Your task to perform on an android device: Open Youtube and go to the subscriptions tab Image 0: 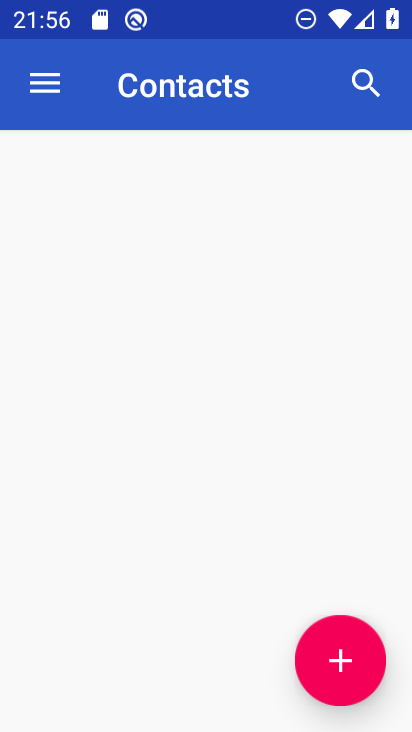
Step 0: press home button
Your task to perform on an android device: Open Youtube and go to the subscriptions tab Image 1: 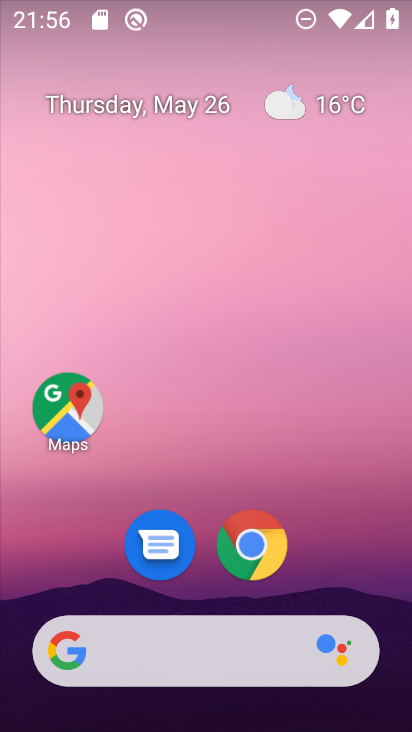
Step 1: drag from (338, 541) to (310, 49)
Your task to perform on an android device: Open Youtube and go to the subscriptions tab Image 2: 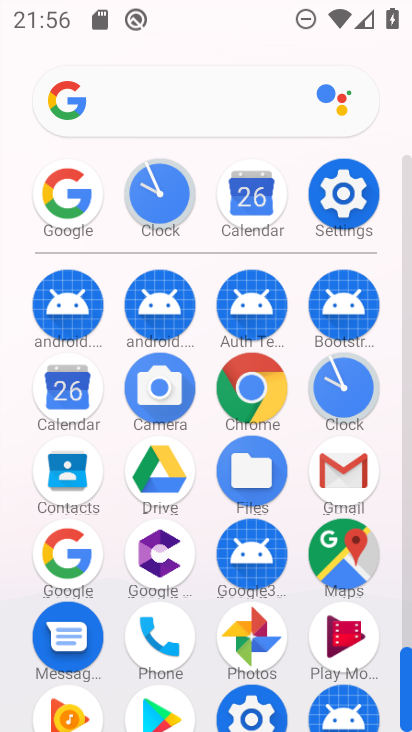
Step 2: drag from (292, 566) to (296, 89)
Your task to perform on an android device: Open Youtube and go to the subscriptions tab Image 3: 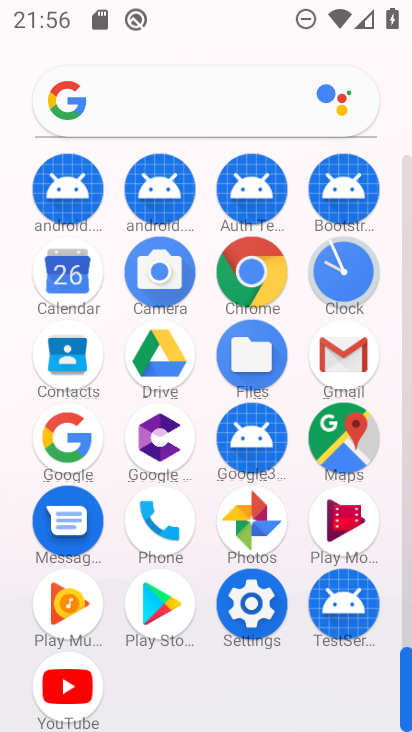
Step 3: click (83, 716)
Your task to perform on an android device: Open Youtube and go to the subscriptions tab Image 4: 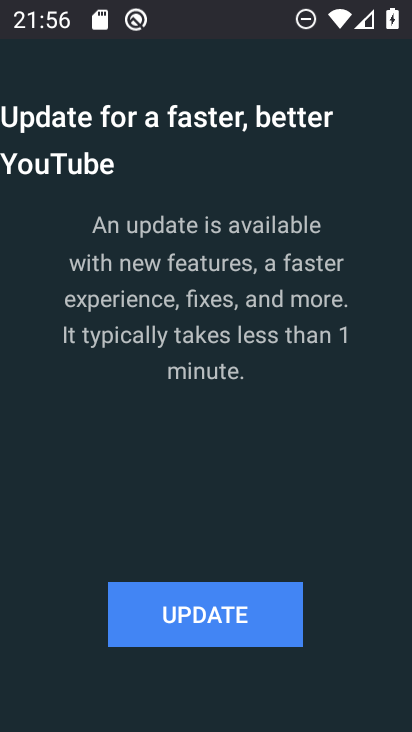
Step 4: click (224, 615)
Your task to perform on an android device: Open Youtube and go to the subscriptions tab Image 5: 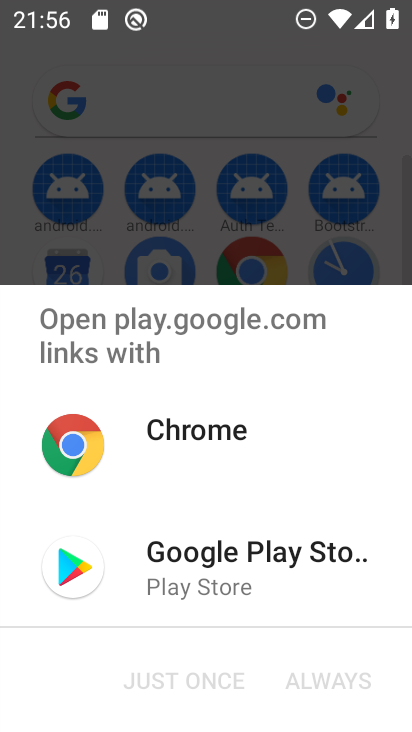
Step 5: click (197, 564)
Your task to perform on an android device: Open Youtube and go to the subscriptions tab Image 6: 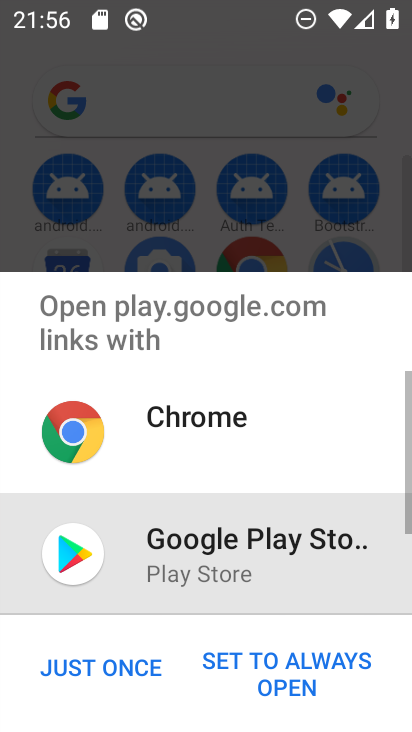
Step 6: click (109, 668)
Your task to perform on an android device: Open Youtube and go to the subscriptions tab Image 7: 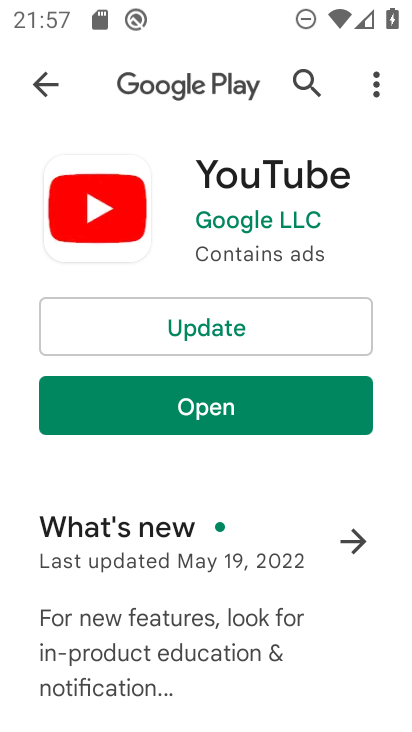
Step 7: click (198, 328)
Your task to perform on an android device: Open Youtube and go to the subscriptions tab Image 8: 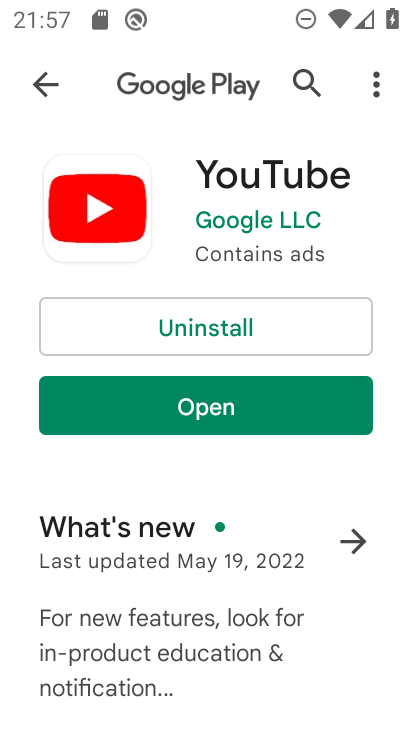
Step 8: click (233, 412)
Your task to perform on an android device: Open Youtube and go to the subscriptions tab Image 9: 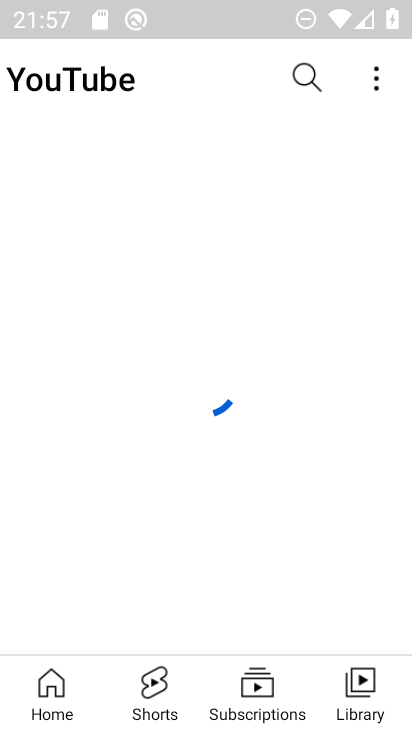
Step 9: click (262, 687)
Your task to perform on an android device: Open Youtube and go to the subscriptions tab Image 10: 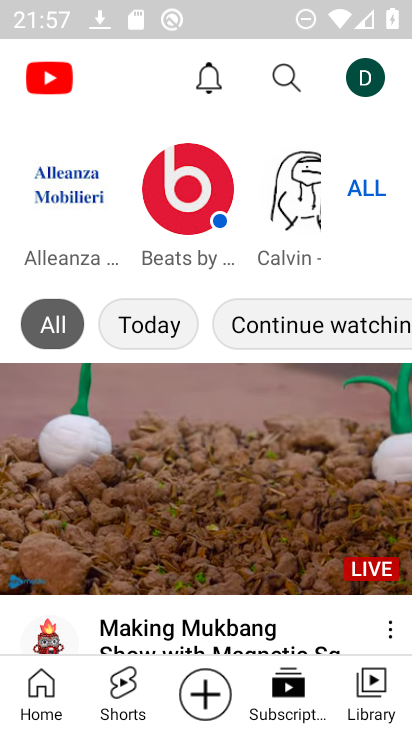
Step 10: task complete